Your task to perform on an android device: What is the recent news? Image 0: 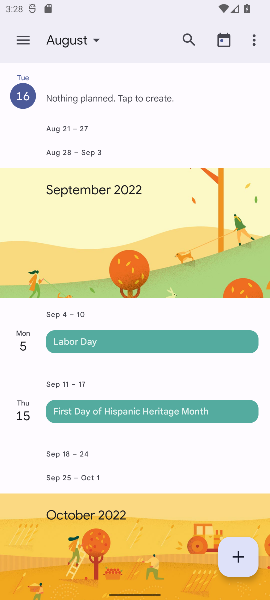
Step 0: task complete